Your task to perform on an android device: open the mobile data screen to see how much data has been used Image 0: 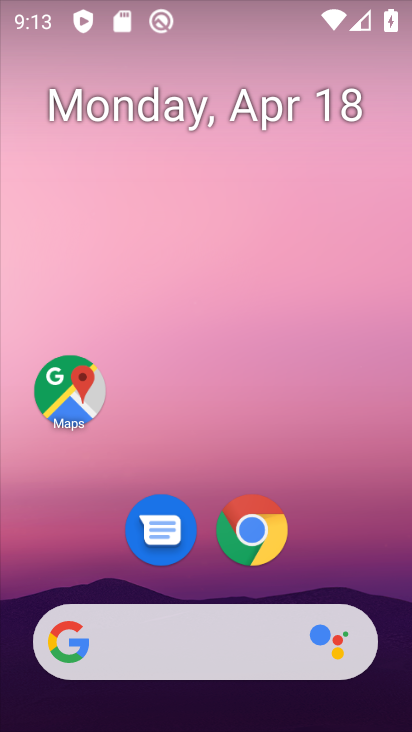
Step 0: drag from (383, 522) to (375, 23)
Your task to perform on an android device: open the mobile data screen to see how much data has been used Image 1: 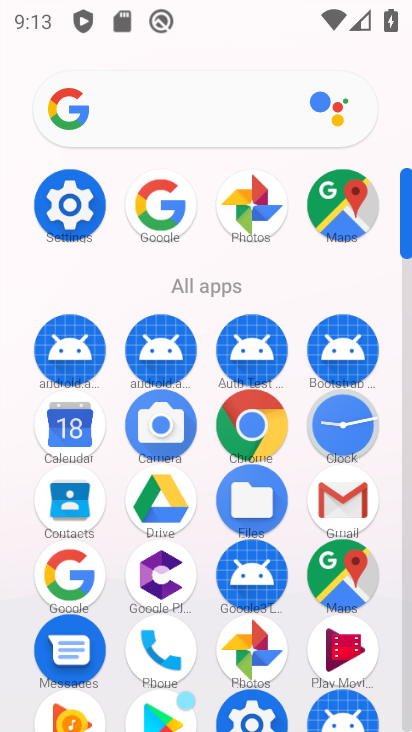
Step 1: click (61, 198)
Your task to perform on an android device: open the mobile data screen to see how much data has been used Image 2: 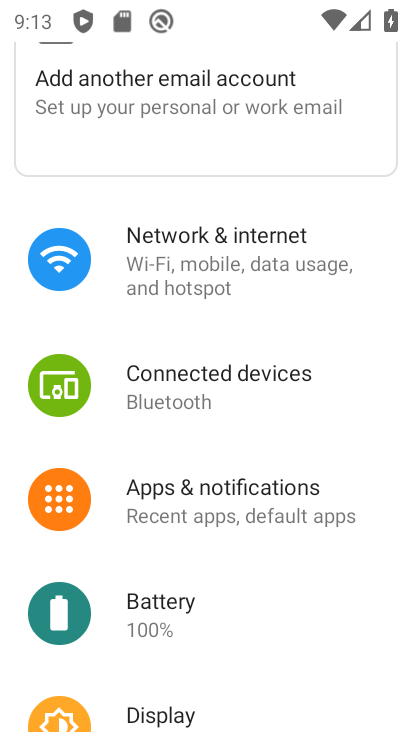
Step 2: click (195, 265)
Your task to perform on an android device: open the mobile data screen to see how much data has been used Image 3: 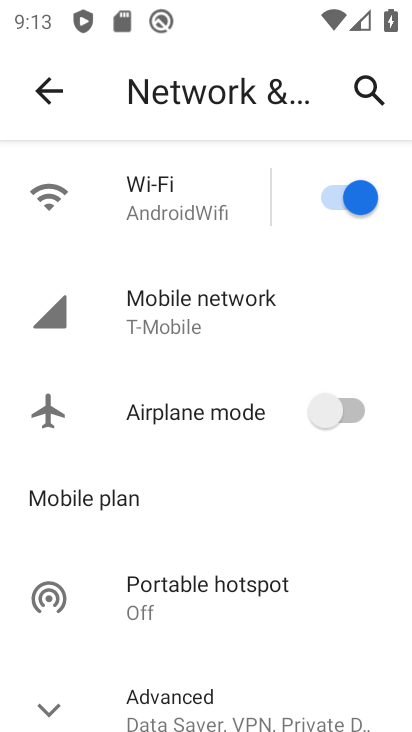
Step 3: click (190, 327)
Your task to perform on an android device: open the mobile data screen to see how much data has been used Image 4: 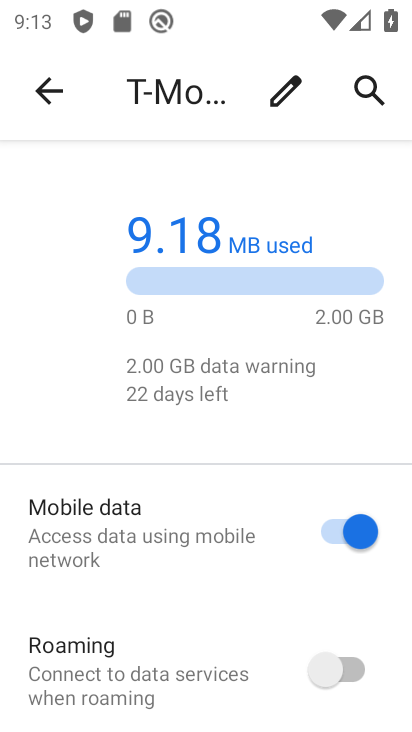
Step 4: drag from (187, 520) to (191, 297)
Your task to perform on an android device: open the mobile data screen to see how much data has been used Image 5: 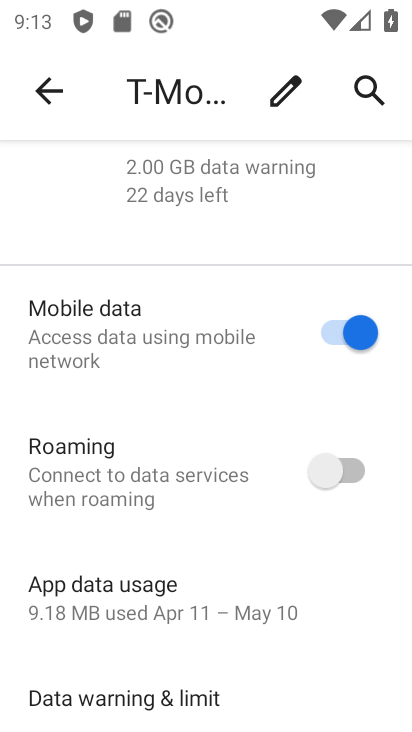
Step 5: drag from (169, 514) to (169, 334)
Your task to perform on an android device: open the mobile data screen to see how much data has been used Image 6: 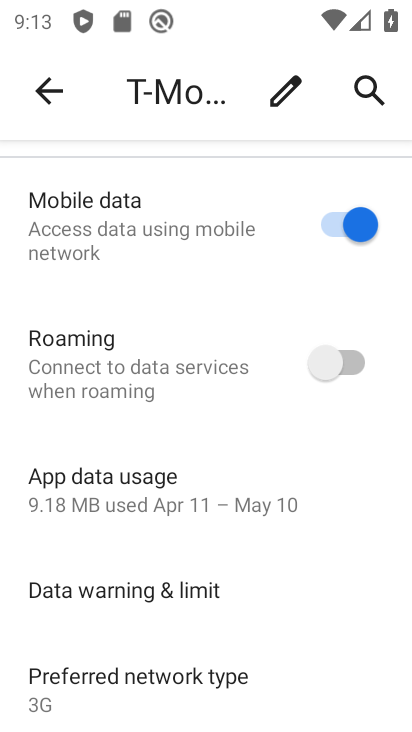
Step 6: click (114, 492)
Your task to perform on an android device: open the mobile data screen to see how much data has been used Image 7: 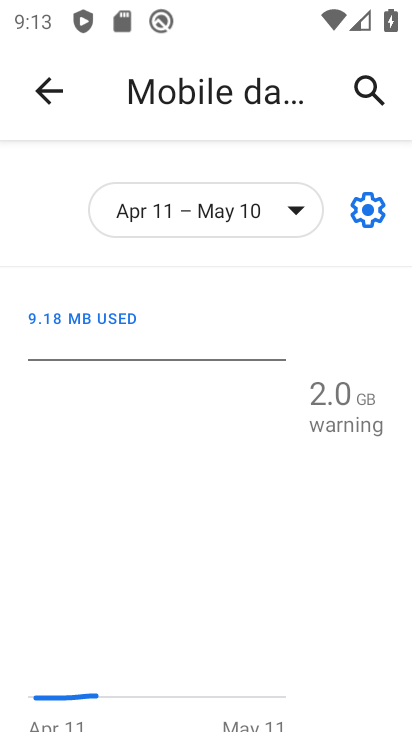
Step 7: task complete